Your task to perform on an android device: set the stopwatch Image 0: 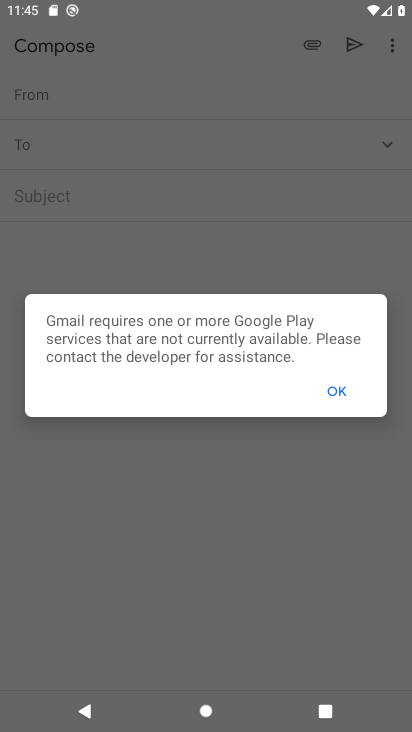
Step 0: press home button
Your task to perform on an android device: set the stopwatch Image 1: 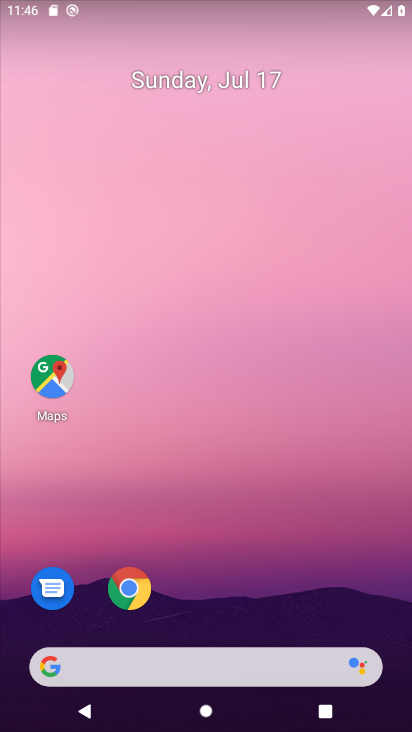
Step 1: drag from (320, 598) to (309, 91)
Your task to perform on an android device: set the stopwatch Image 2: 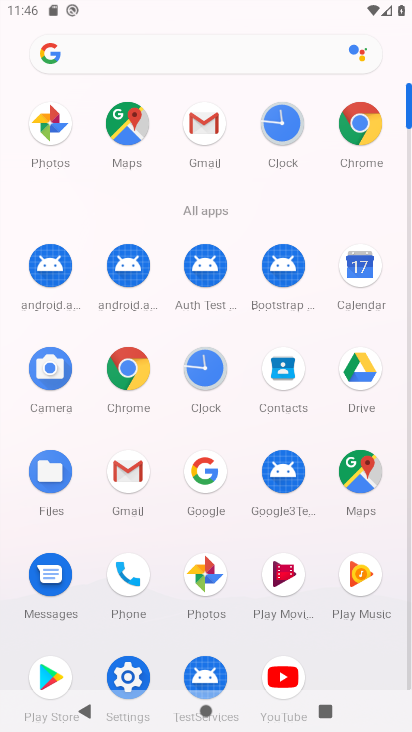
Step 2: click (297, 136)
Your task to perform on an android device: set the stopwatch Image 3: 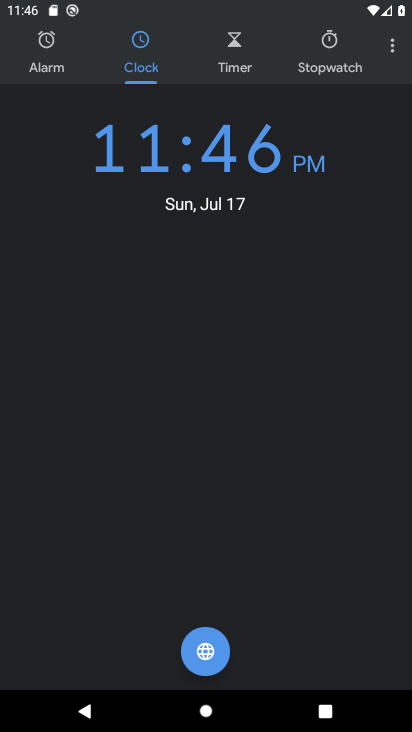
Step 3: click (342, 81)
Your task to perform on an android device: set the stopwatch Image 4: 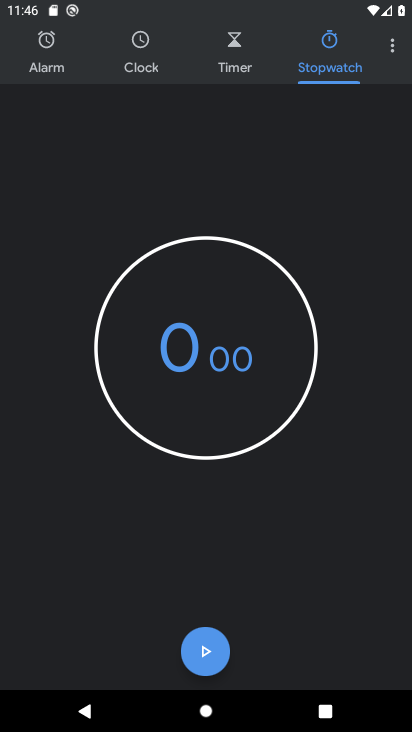
Step 4: click (199, 639)
Your task to perform on an android device: set the stopwatch Image 5: 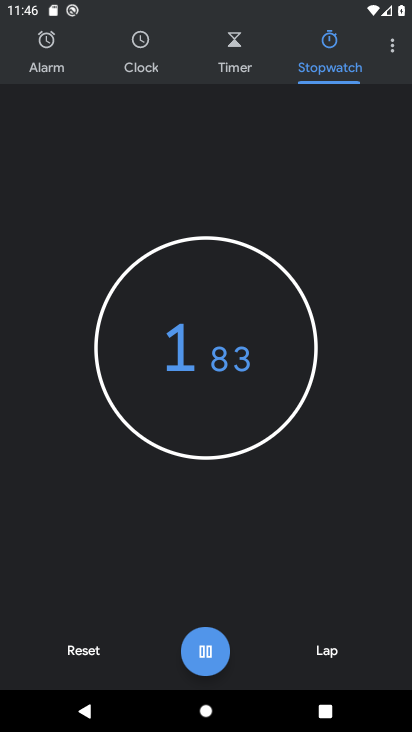
Step 5: task complete